Your task to perform on an android device: Search for Italian restaurants on Maps Image 0: 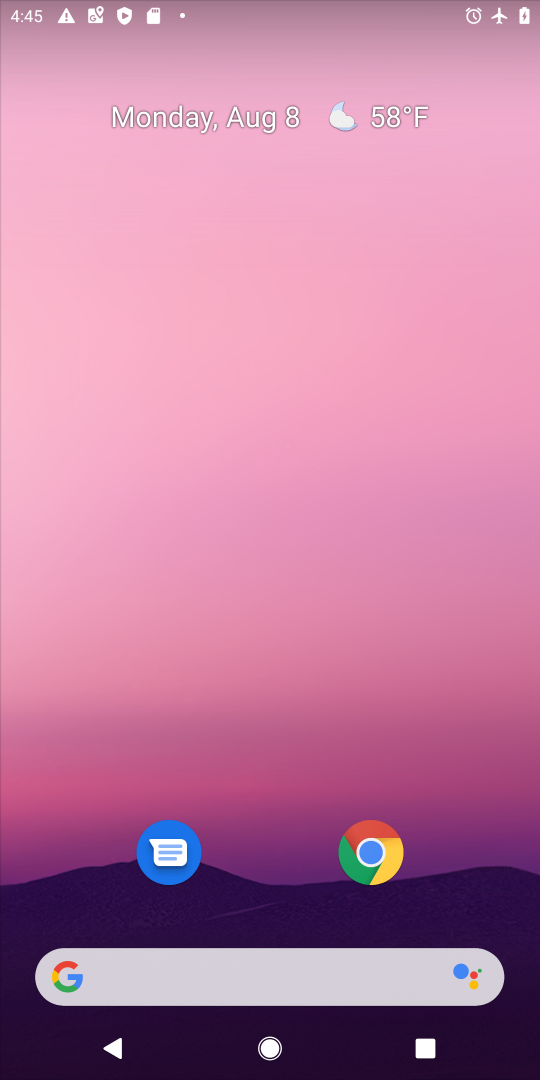
Step 0: drag from (330, 443) to (376, 102)
Your task to perform on an android device: Search for Italian restaurants on Maps Image 1: 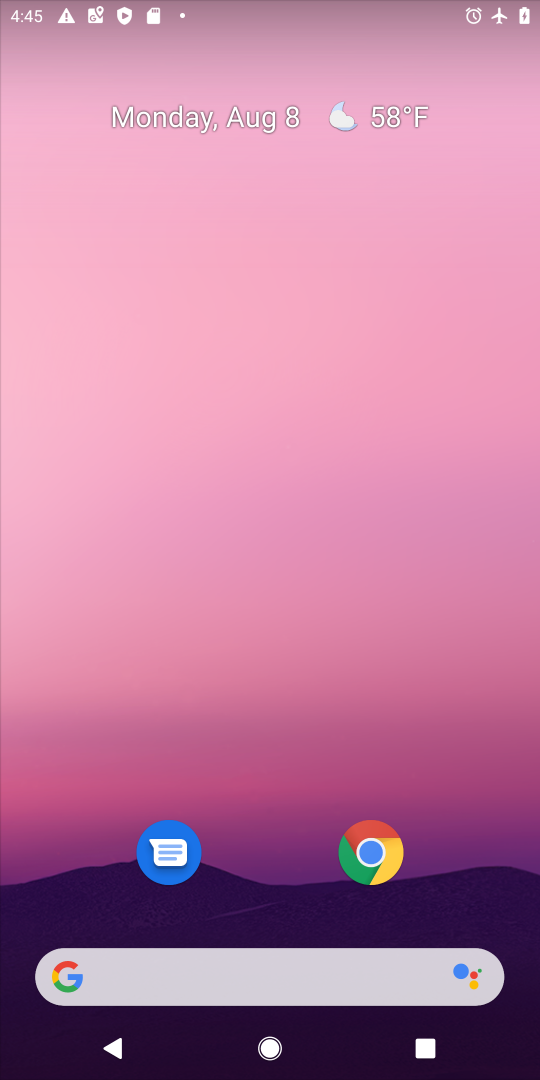
Step 1: drag from (247, 844) to (283, 152)
Your task to perform on an android device: Search for Italian restaurants on Maps Image 2: 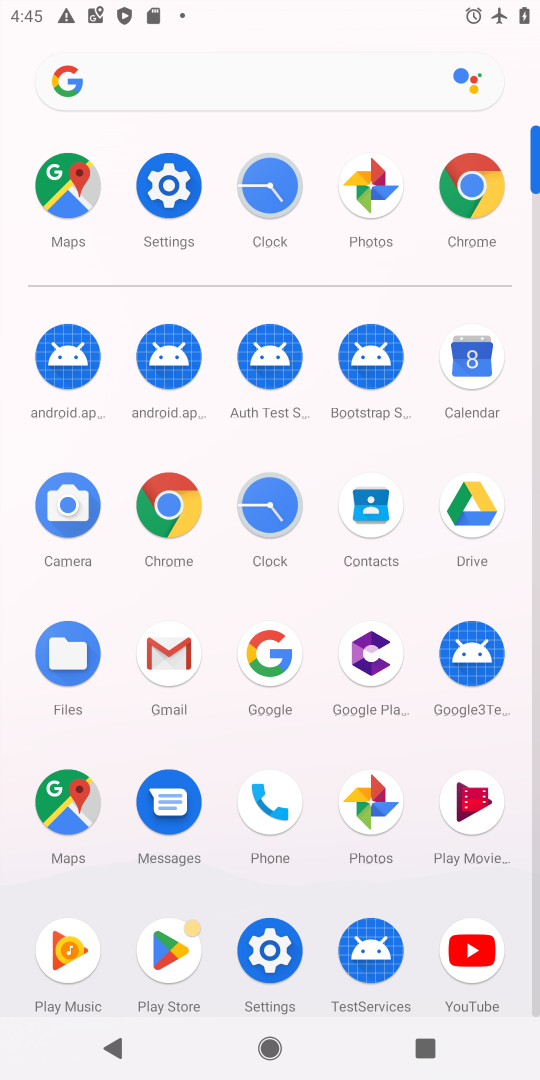
Step 2: click (65, 805)
Your task to perform on an android device: Search for Italian restaurants on Maps Image 3: 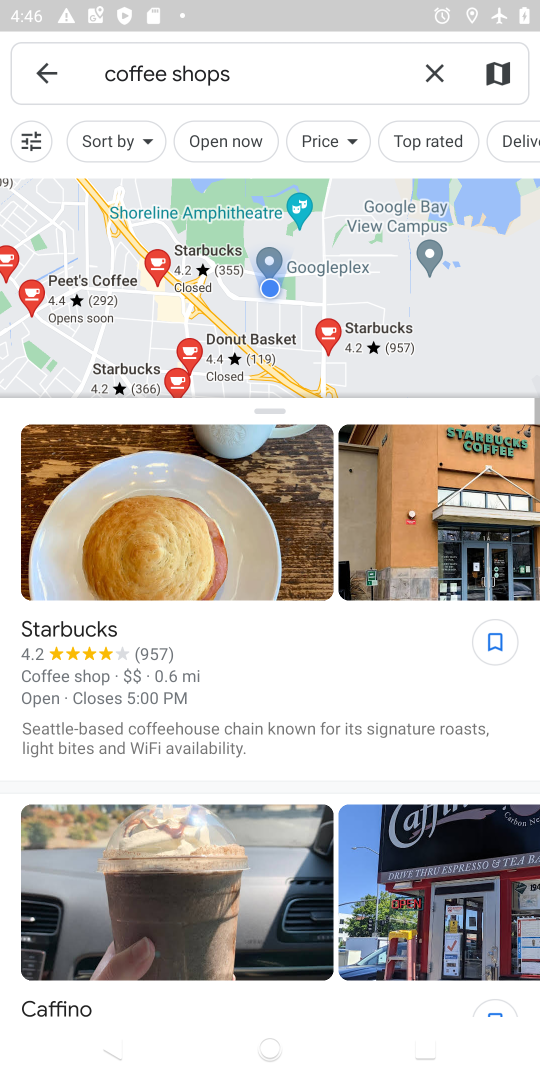
Step 3: click (433, 73)
Your task to perform on an android device: Search for Italian restaurants on Maps Image 4: 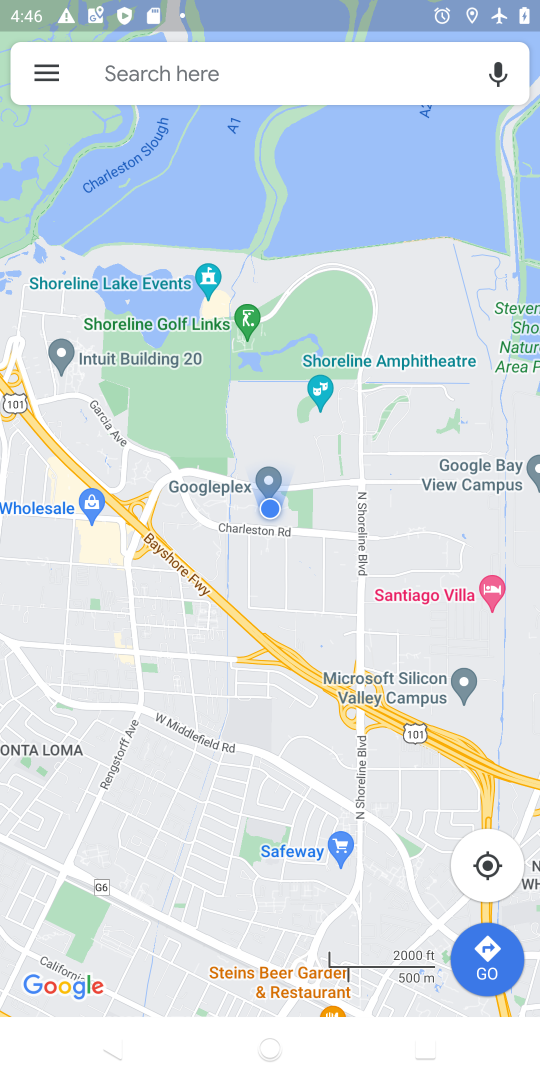
Step 4: click (395, 73)
Your task to perform on an android device: Search for Italian restaurants on Maps Image 5: 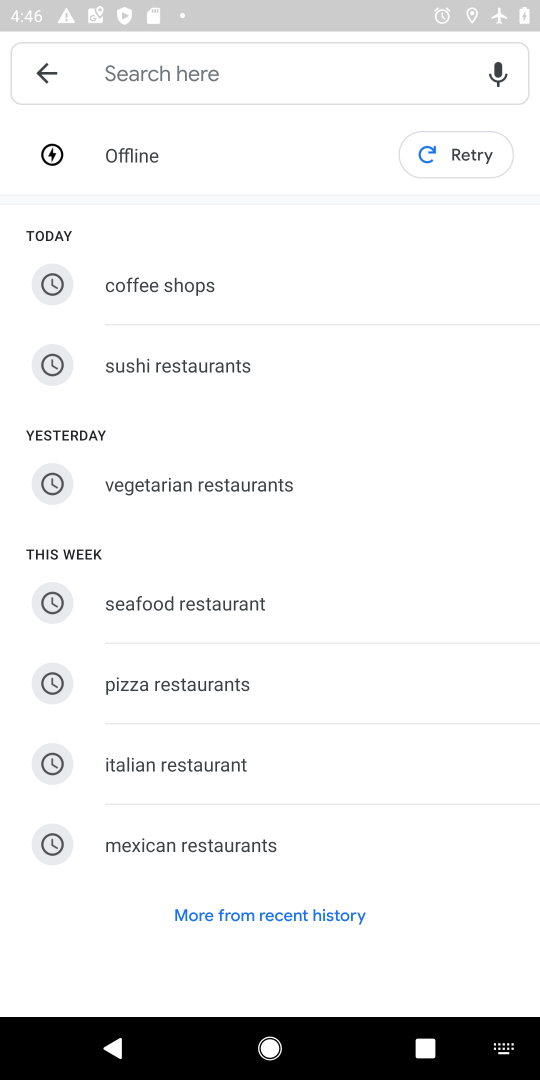
Step 5: type "Italian restaurants"
Your task to perform on an android device: Search for Italian restaurants on Maps Image 6: 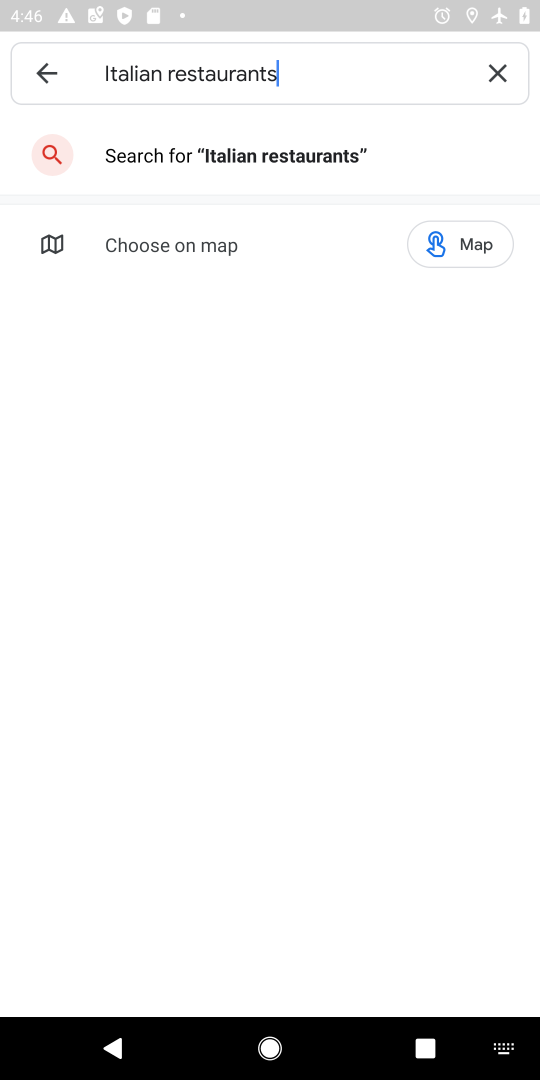
Step 6: click (301, 155)
Your task to perform on an android device: Search for Italian restaurants on Maps Image 7: 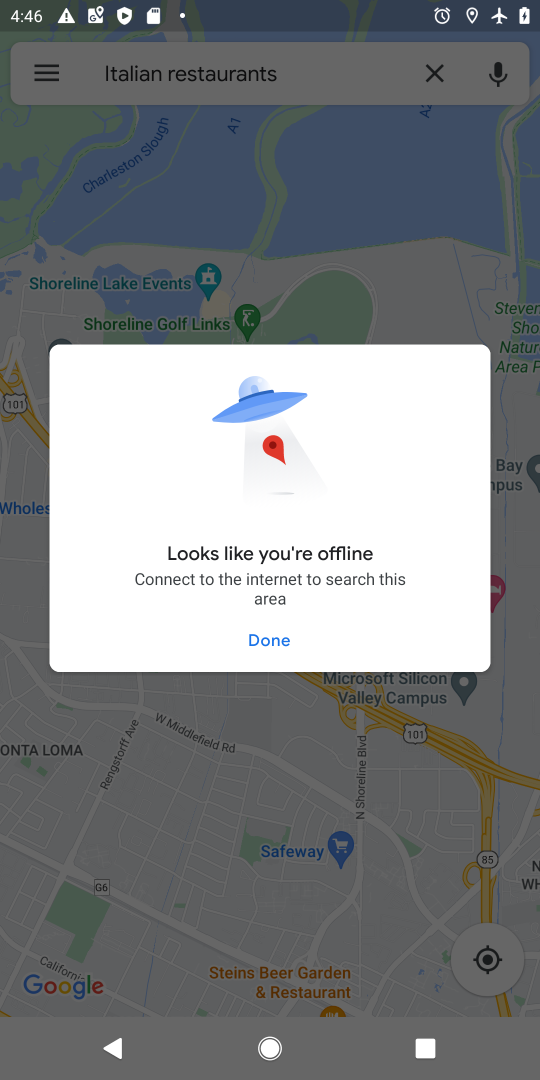
Step 7: task complete